Your task to perform on an android device: Open the Play Movies app and select the watchlist tab. Image 0: 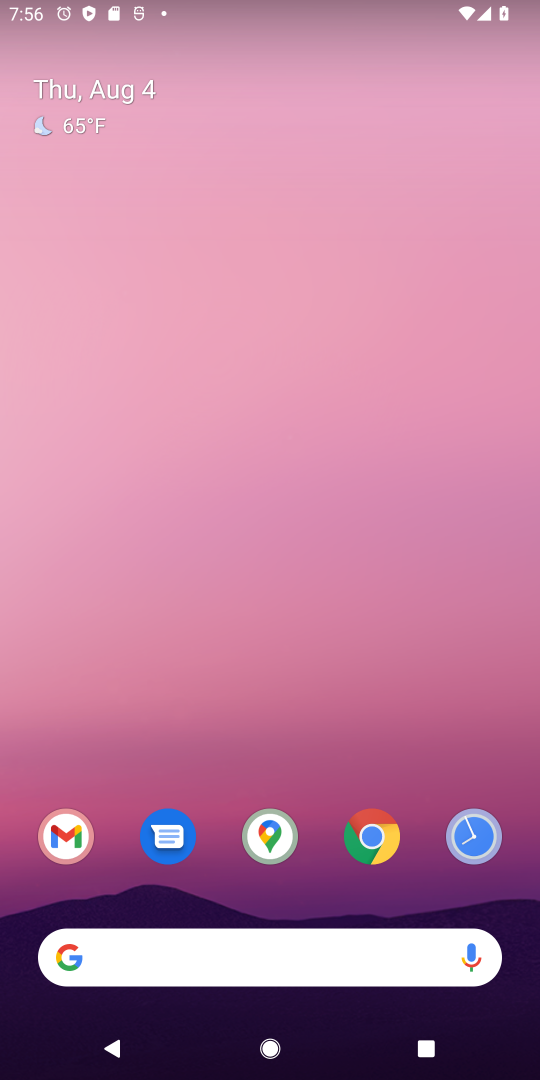
Step 0: drag from (143, 891) to (241, 74)
Your task to perform on an android device: Open the Play Movies app and select the watchlist tab. Image 1: 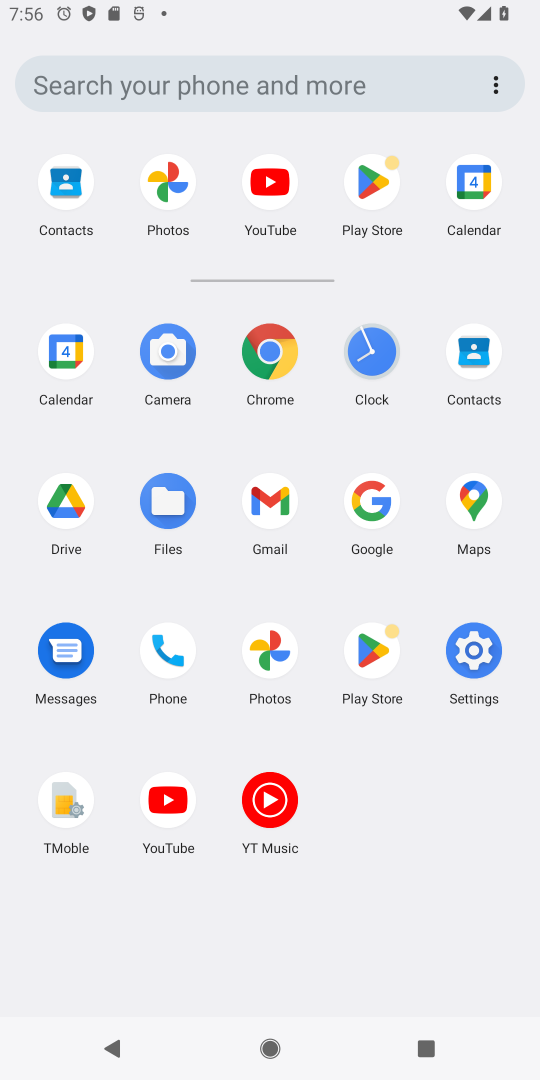
Step 1: task complete